Your task to perform on an android device: turn off translation in the chrome app Image 0: 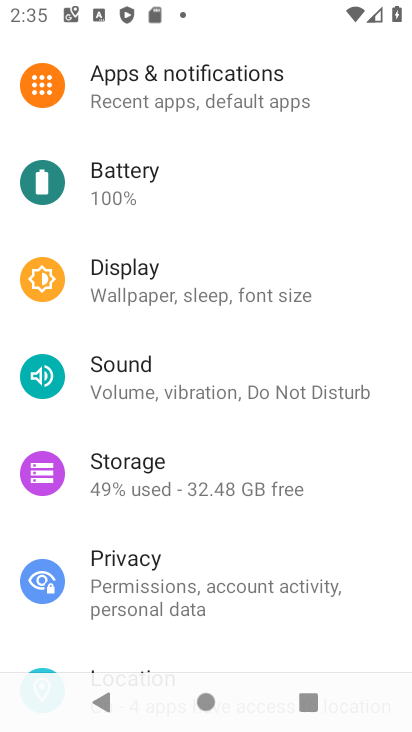
Step 0: press home button
Your task to perform on an android device: turn off translation in the chrome app Image 1: 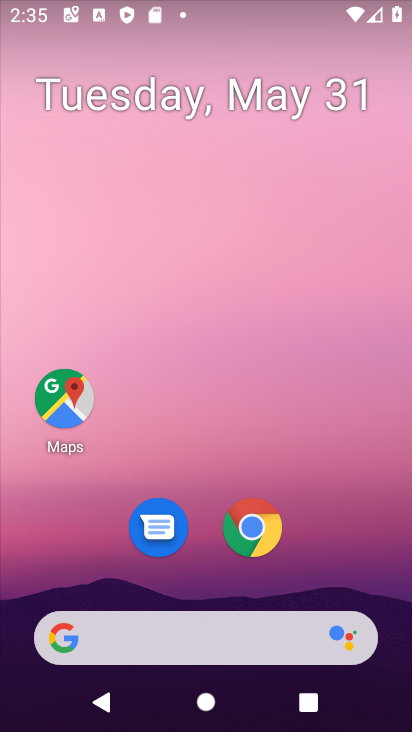
Step 1: click (248, 522)
Your task to perform on an android device: turn off translation in the chrome app Image 2: 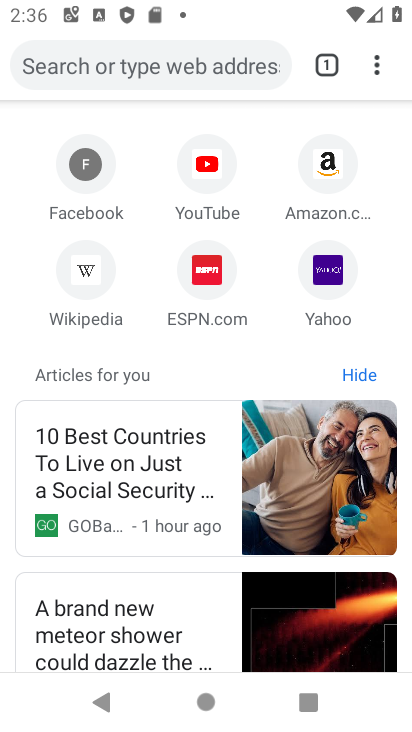
Step 2: click (376, 67)
Your task to perform on an android device: turn off translation in the chrome app Image 3: 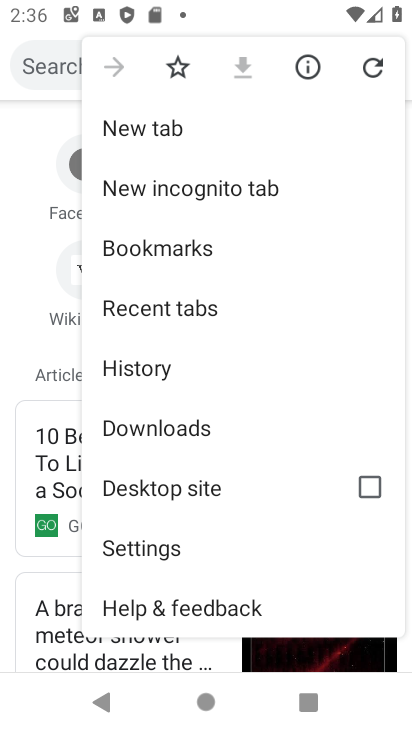
Step 3: click (144, 549)
Your task to perform on an android device: turn off translation in the chrome app Image 4: 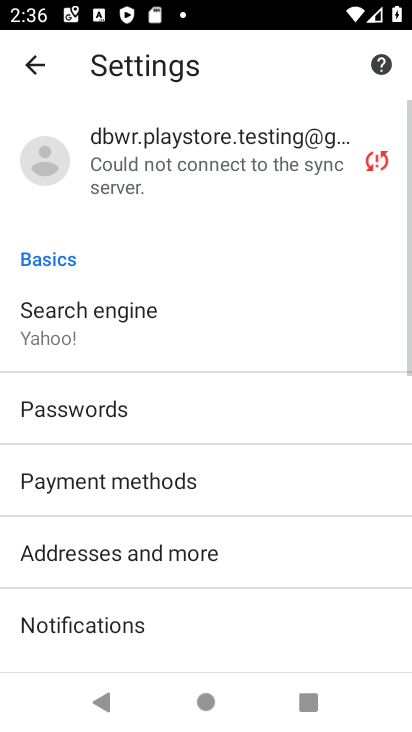
Step 4: drag from (276, 619) to (226, 36)
Your task to perform on an android device: turn off translation in the chrome app Image 5: 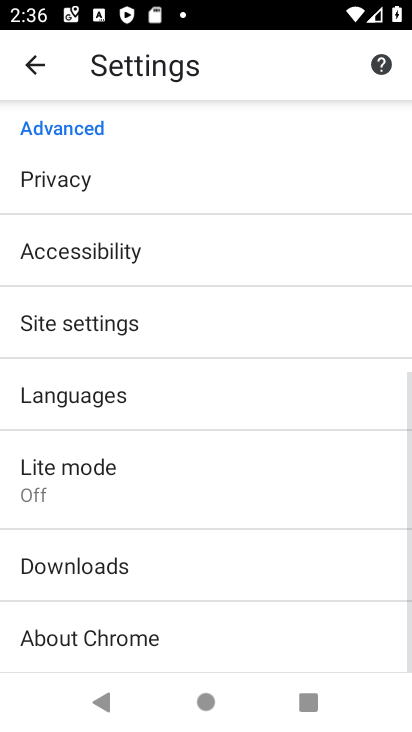
Step 5: drag from (220, 630) to (202, 286)
Your task to perform on an android device: turn off translation in the chrome app Image 6: 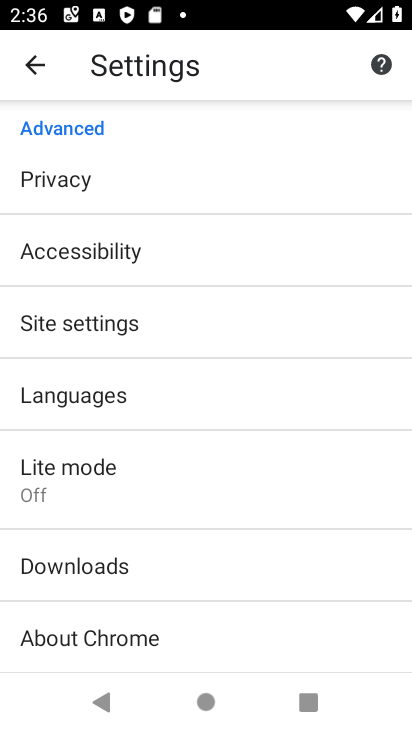
Step 6: click (66, 399)
Your task to perform on an android device: turn off translation in the chrome app Image 7: 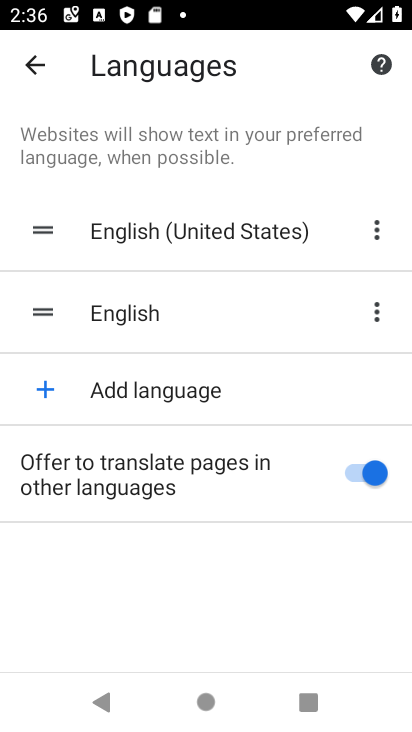
Step 7: click (350, 471)
Your task to perform on an android device: turn off translation in the chrome app Image 8: 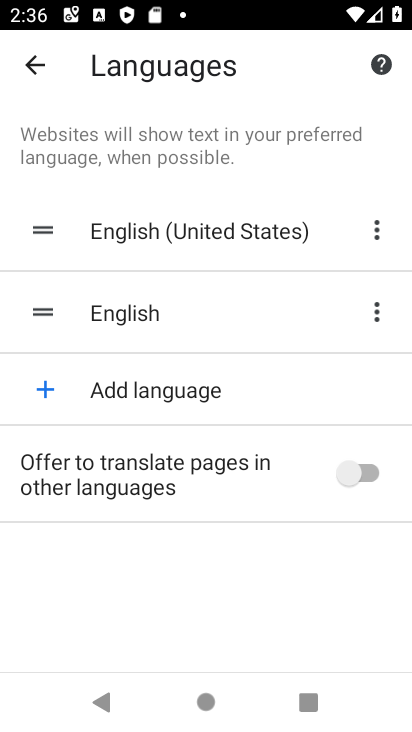
Step 8: task complete